Your task to perform on an android device: toggle notification dots Image 0: 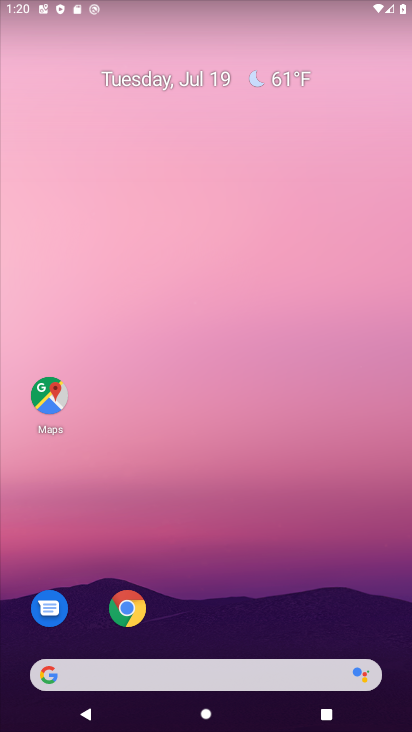
Step 0: drag from (180, 601) to (169, 74)
Your task to perform on an android device: toggle notification dots Image 1: 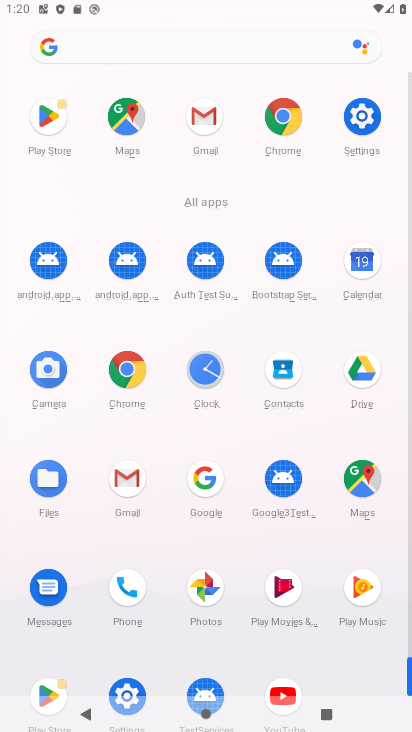
Step 1: click (354, 115)
Your task to perform on an android device: toggle notification dots Image 2: 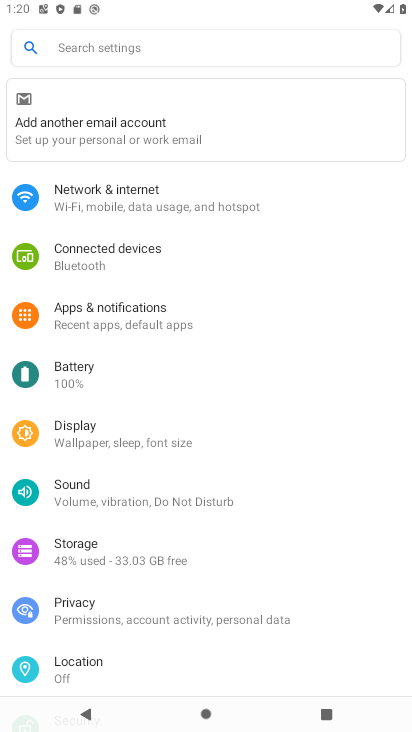
Step 2: click (134, 319)
Your task to perform on an android device: toggle notification dots Image 3: 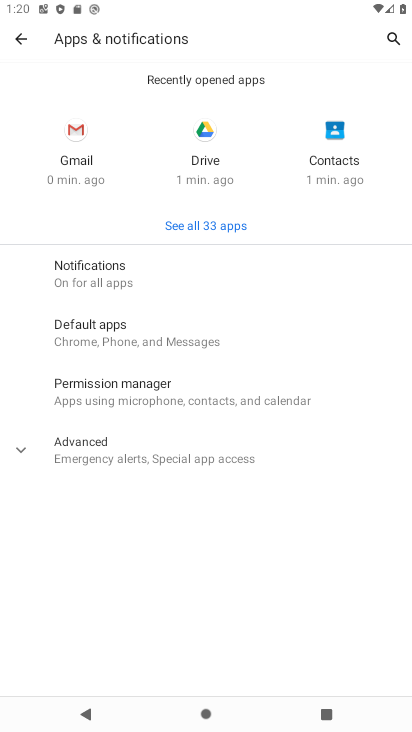
Step 3: click (109, 285)
Your task to perform on an android device: toggle notification dots Image 4: 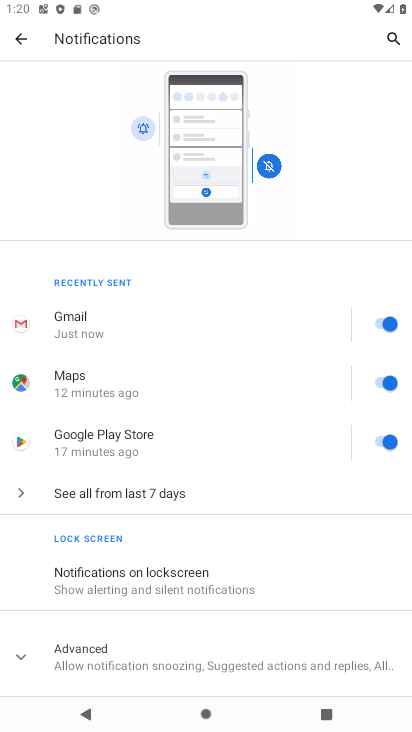
Step 4: click (100, 659)
Your task to perform on an android device: toggle notification dots Image 5: 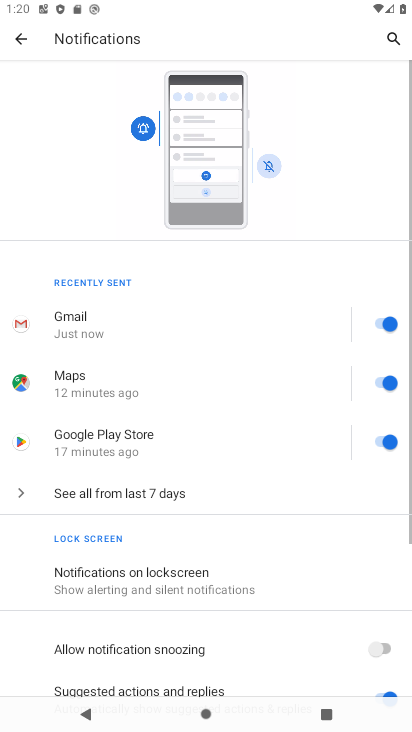
Step 5: drag from (157, 642) to (162, 283)
Your task to perform on an android device: toggle notification dots Image 6: 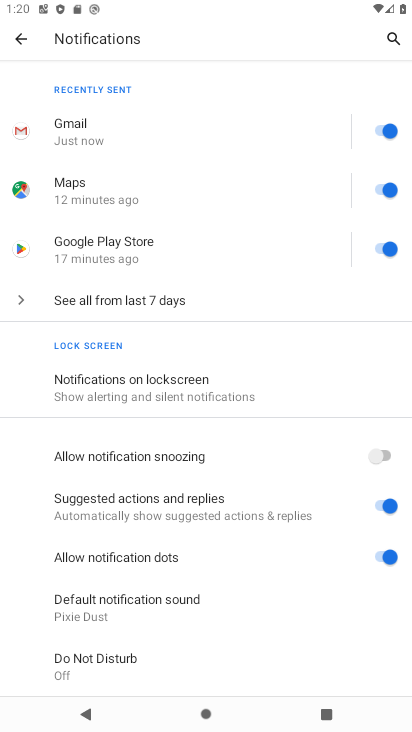
Step 6: click (152, 557)
Your task to perform on an android device: toggle notification dots Image 7: 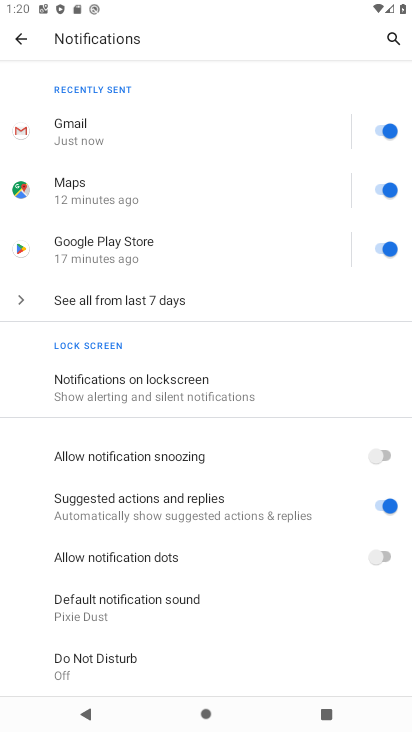
Step 7: task complete